Your task to perform on an android device: Clear all items from cart on bestbuy.com. Search for "dell xps" on bestbuy.com, select the first entry, add it to the cart, then select checkout. Image 0: 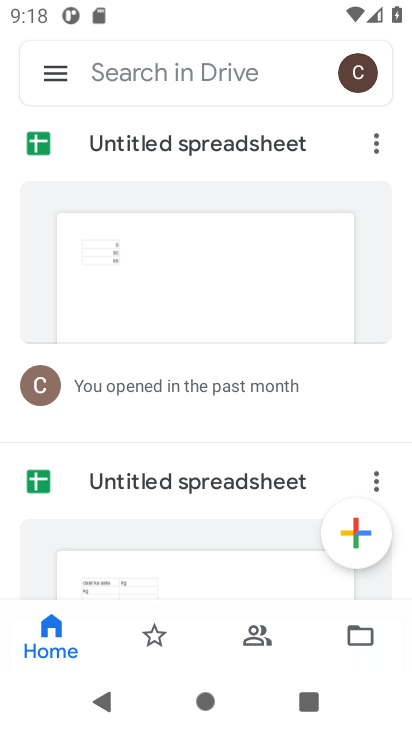
Step 0: press home button
Your task to perform on an android device: Clear all items from cart on bestbuy.com. Search for "dell xps" on bestbuy.com, select the first entry, add it to the cart, then select checkout. Image 1: 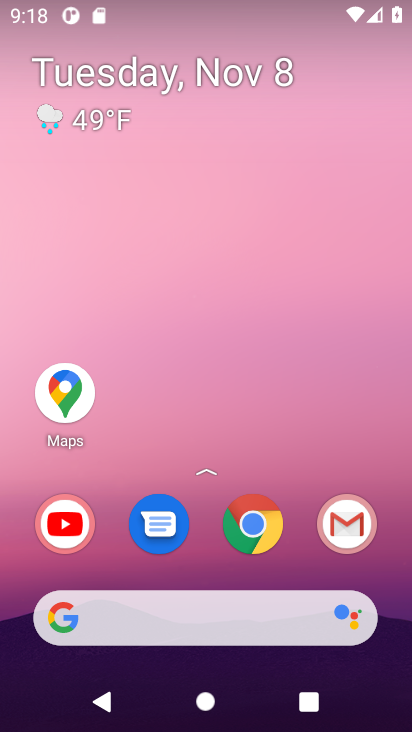
Step 1: click (259, 528)
Your task to perform on an android device: Clear all items from cart on bestbuy.com. Search for "dell xps" on bestbuy.com, select the first entry, add it to the cart, then select checkout. Image 2: 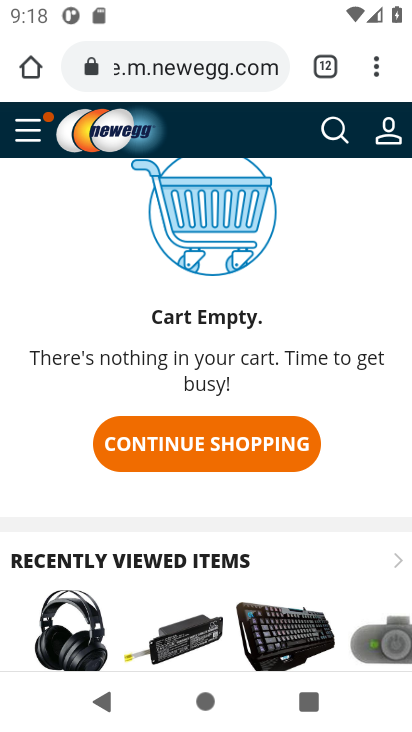
Step 2: click (160, 68)
Your task to perform on an android device: Clear all items from cart on bestbuy.com. Search for "dell xps" on bestbuy.com, select the first entry, add it to the cart, then select checkout. Image 3: 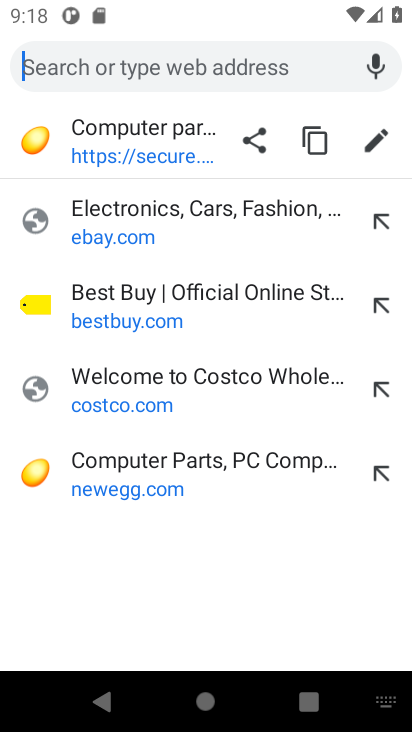
Step 3: click (135, 303)
Your task to perform on an android device: Clear all items from cart on bestbuy.com. Search for "dell xps" on bestbuy.com, select the first entry, add it to the cart, then select checkout. Image 4: 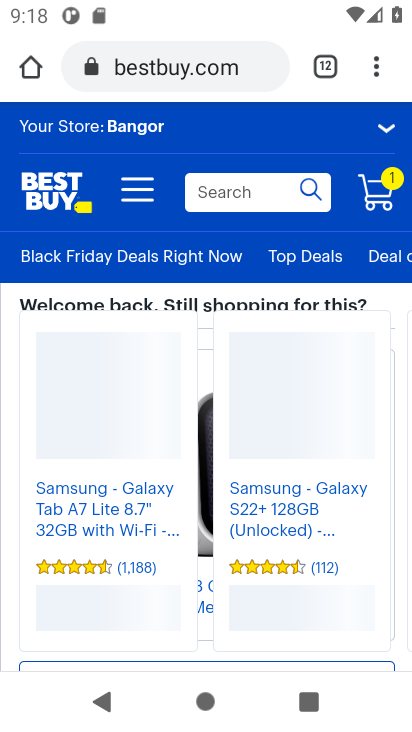
Step 4: click (382, 206)
Your task to perform on an android device: Clear all items from cart on bestbuy.com. Search for "dell xps" on bestbuy.com, select the first entry, add it to the cart, then select checkout. Image 5: 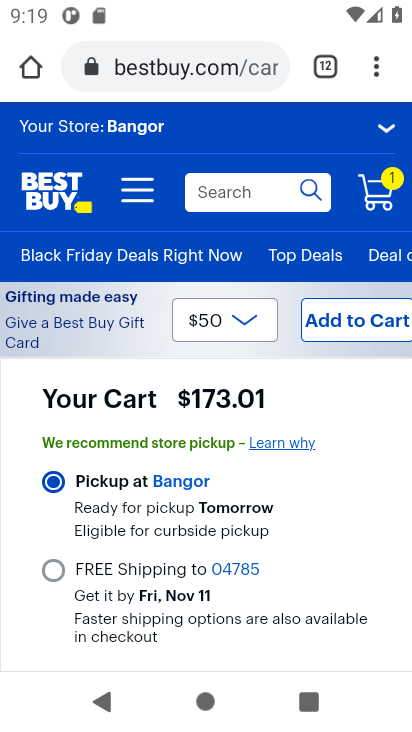
Step 5: drag from (311, 568) to (322, 213)
Your task to perform on an android device: Clear all items from cart on bestbuy.com. Search for "dell xps" on bestbuy.com, select the first entry, add it to the cart, then select checkout. Image 6: 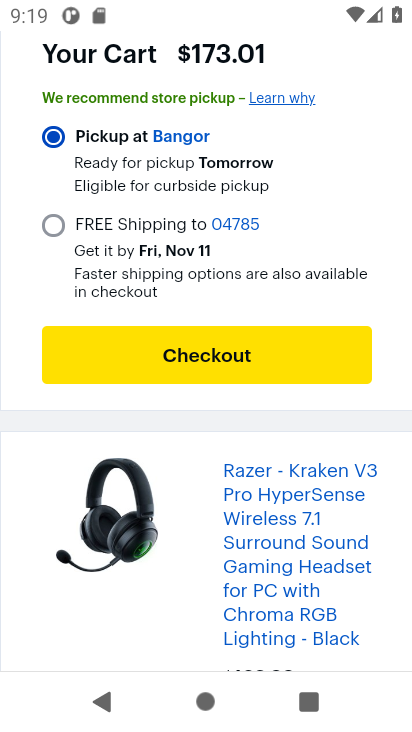
Step 6: drag from (275, 405) to (269, 184)
Your task to perform on an android device: Clear all items from cart on bestbuy.com. Search for "dell xps" on bestbuy.com, select the first entry, add it to the cart, then select checkout. Image 7: 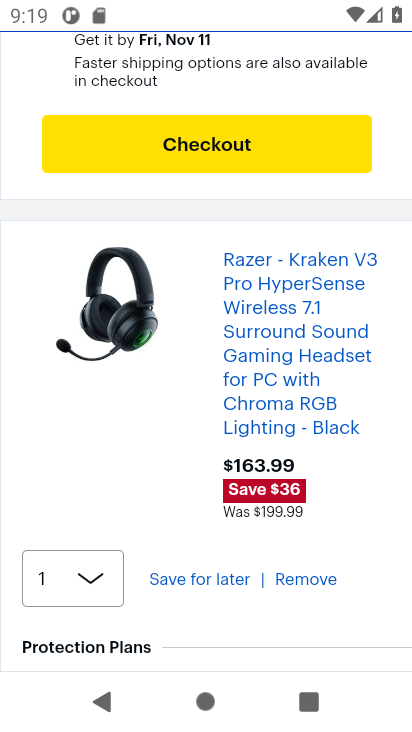
Step 7: click (303, 581)
Your task to perform on an android device: Clear all items from cart on bestbuy.com. Search for "dell xps" on bestbuy.com, select the first entry, add it to the cart, then select checkout. Image 8: 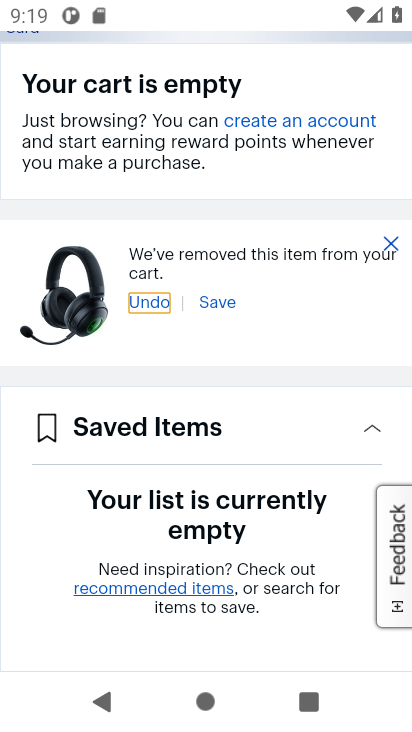
Step 8: drag from (231, 230) to (231, 574)
Your task to perform on an android device: Clear all items from cart on bestbuy.com. Search for "dell xps" on bestbuy.com, select the first entry, add it to the cart, then select checkout. Image 9: 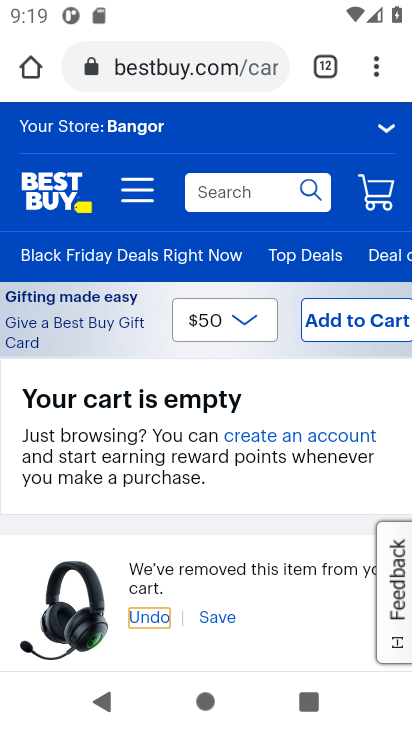
Step 9: click (237, 192)
Your task to perform on an android device: Clear all items from cart on bestbuy.com. Search for "dell xps" on bestbuy.com, select the first entry, add it to the cart, then select checkout. Image 10: 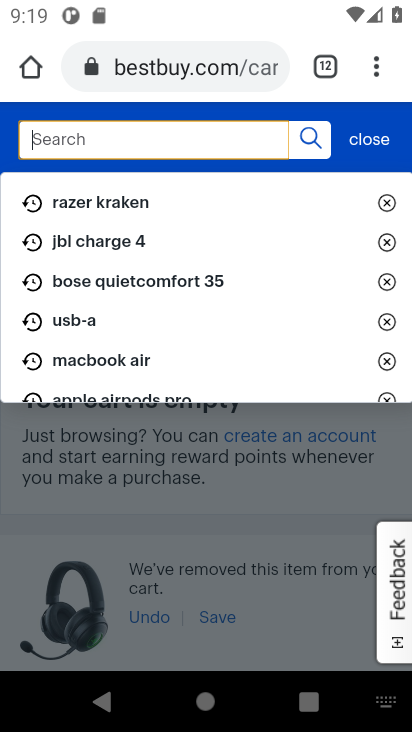
Step 10: type "dell xps"
Your task to perform on an android device: Clear all items from cart on bestbuy.com. Search for "dell xps" on bestbuy.com, select the first entry, add it to the cart, then select checkout. Image 11: 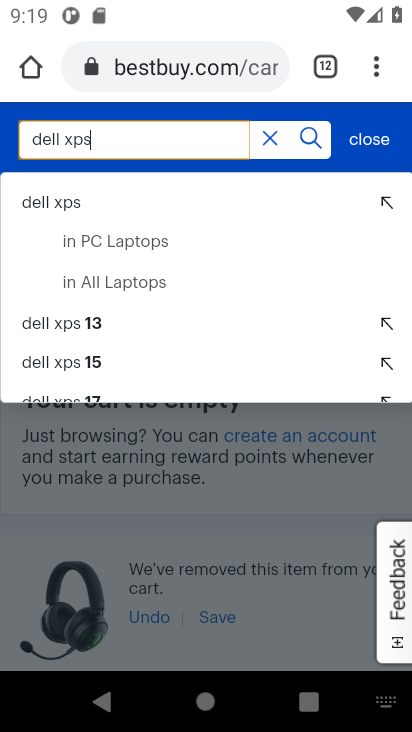
Step 11: click (34, 211)
Your task to perform on an android device: Clear all items from cart on bestbuy.com. Search for "dell xps" on bestbuy.com, select the first entry, add it to the cart, then select checkout. Image 12: 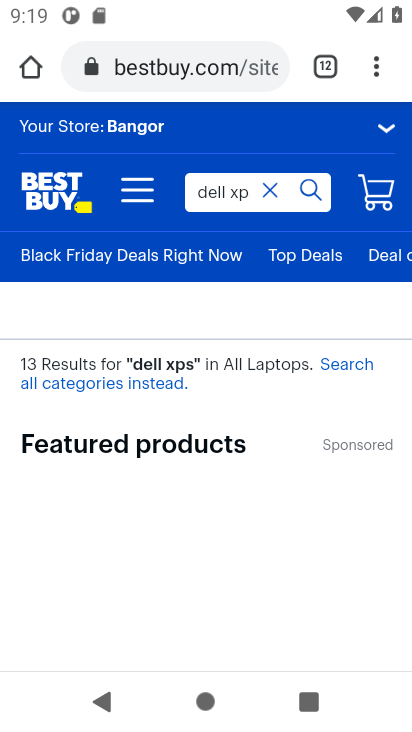
Step 12: drag from (225, 463) to (225, 29)
Your task to perform on an android device: Clear all items from cart on bestbuy.com. Search for "dell xps" on bestbuy.com, select the first entry, add it to the cart, then select checkout. Image 13: 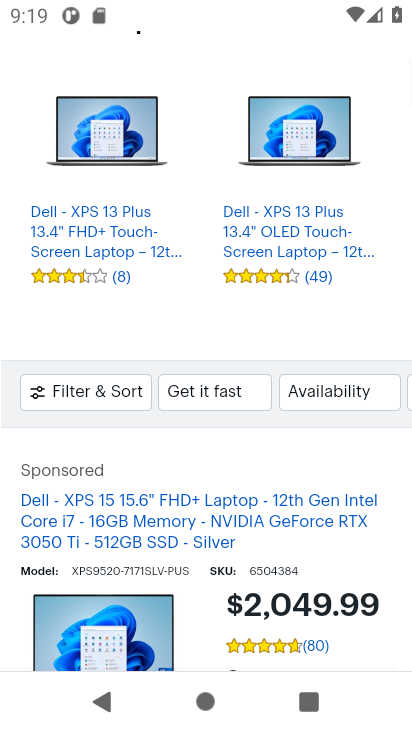
Step 13: drag from (268, 481) to (252, 241)
Your task to perform on an android device: Clear all items from cart on bestbuy.com. Search for "dell xps" on bestbuy.com, select the first entry, add it to the cart, then select checkout. Image 14: 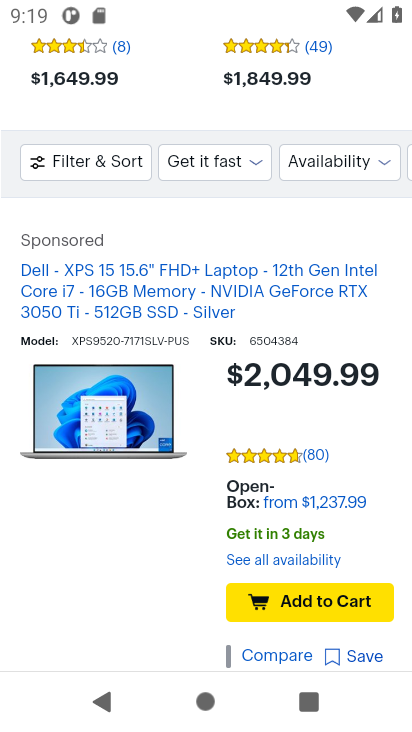
Step 14: click (311, 594)
Your task to perform on an android device: Clear all items from cart on bestbuy.com. Search for "dell xps" on bestbuy.com, select the first entry, add it to the cart, then select checkout. Image 15: 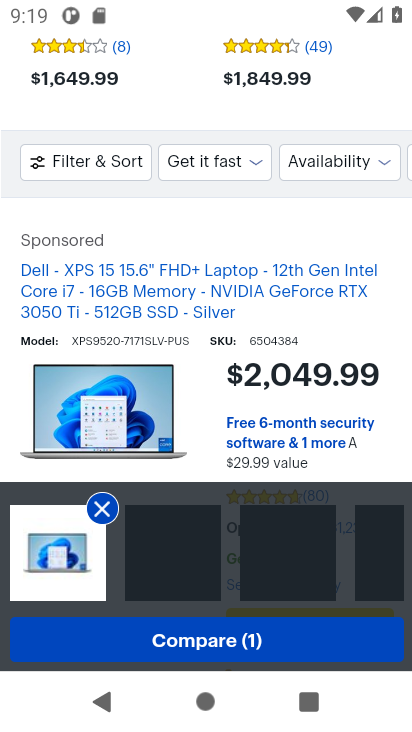
Step 15: drag from (252, 413) to (223, 240)
Your task to perform on an android device: Clear all items from cart on bestbuy.com. Search for "dell xps" on bestbuy.com, select the first entry, add it to the cart, then select checkout. Image 16: 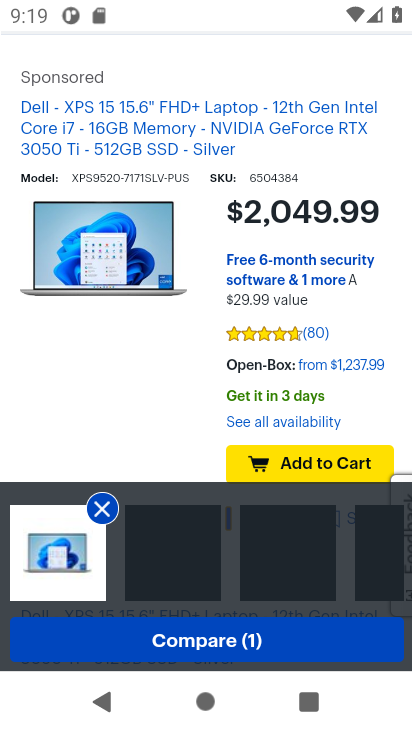
Step 16: click (261, 424)
Your task to perform on an android device: Clear all items from cart on bestbuy.com. Search for "dell xps" on bestbuy.com, select the first entry, add it to the cart, then select checkout. Image 17: 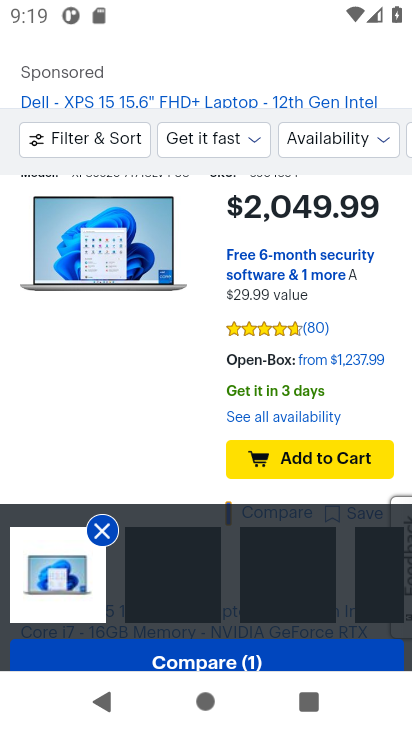
Step 17: click (318, 461)
Your task to perform on an android device: Clear all items from cart on bestbuy.com. Search for "dell xps" on bestbuy.com, select the first entry, add it to the cart, then select checkout. Image 18: 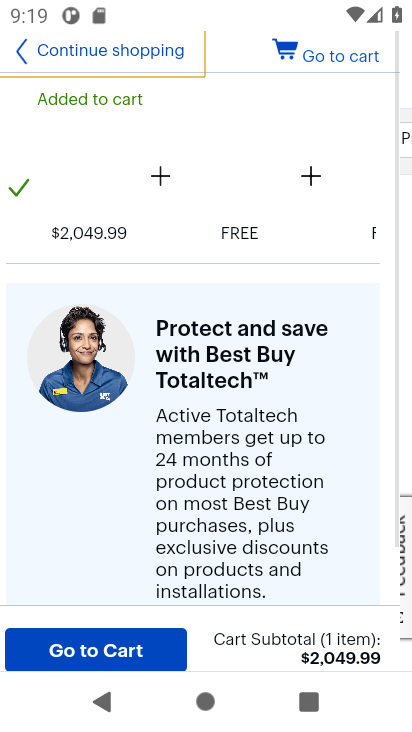
Step 18: click (331, 60)
Your task to perform on an android device: Clear all items from cart on bestbuy.com. Search for "dell xps" on bestbuy.com, select the first entry, add it to the cart, then select checkout. Image 19: 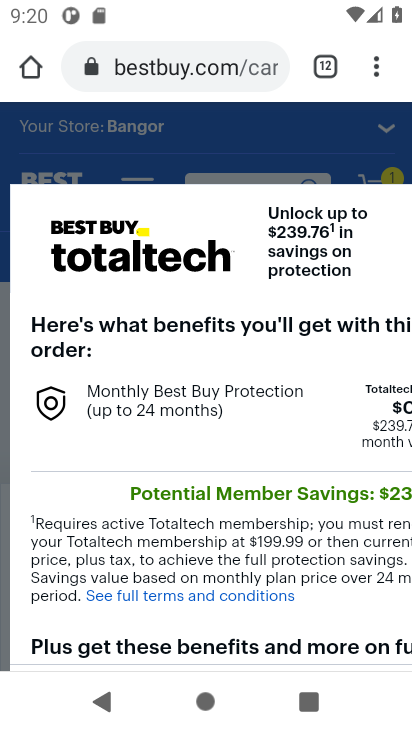
Step 19: drag from (276, 485) to (230, 175)
Your task to perform on an android device: Clear all items from cart on bestbuy.com. Search for "dell xps" on bestbuy.com, select the first entry, add it to the cart, then select checkout. Image 20: 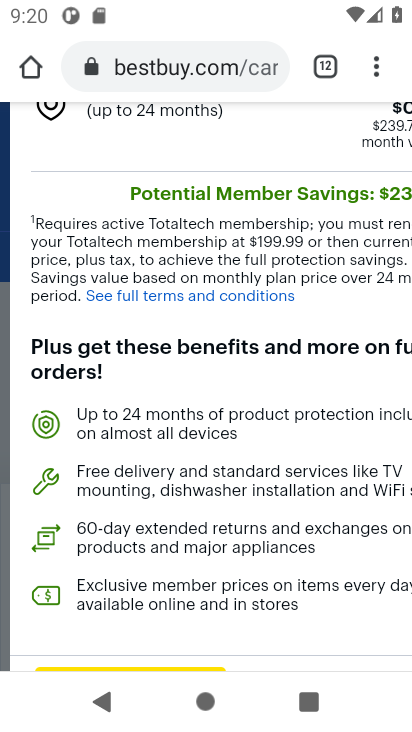
Step 20: drag from (260, 625) to (267, 336)
Your task to perform on an android device: Clear all items from cart on bestbuy.com. Search for "dell xps" on bestbuy.com, select the first entry, add it to the cart, then select checkout. Image 21: 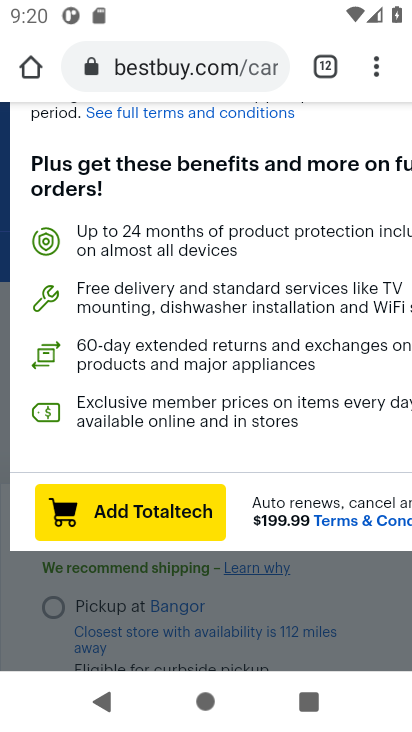
Step 21: click (362, 587)
Your task to perform on an android device: Clear all items from cart on bestbuy.com. Search for "dell xps" on bestbuy.com, select the first entry, add it to the cart, then select checkout. Image 22: 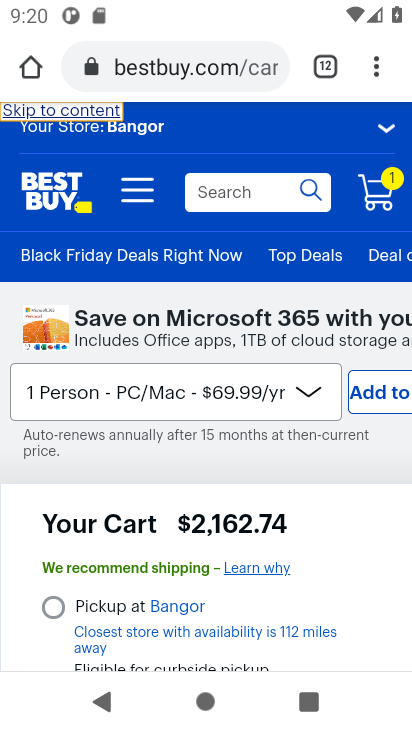
Step 22: drag from (336, 575) to (299, 214)
Your task to perform on an android device: Clear all items from cart on bestbuy.com. Search for "dell xps" on bestbuy.com, select the first entry, add it to the cart, then select checkout. Image 23: 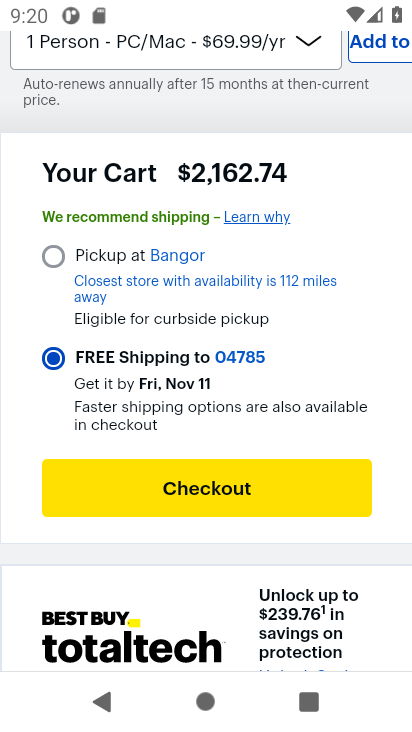
Step 23: click (195, 498)
Your task to perform on an android device: Clear all items from cart on bestbuy.com. Search for "dell xps" on bestbuy.com, select the first entry, add it to the cart, then select checkout. Image 24: 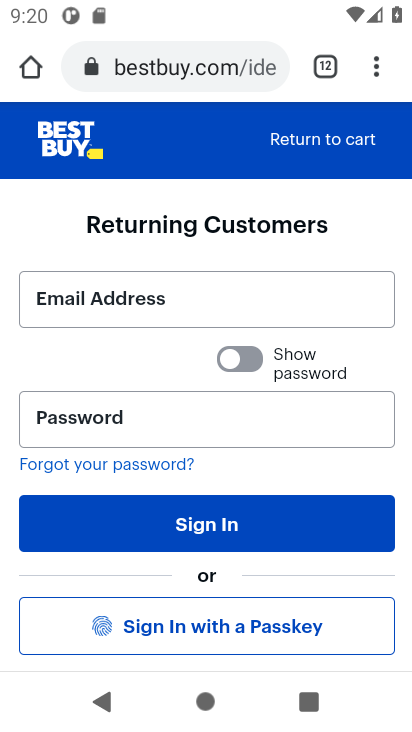
Step 24: task complete